Your task to perform on an android device: turn on improve location accuracy Image 0: 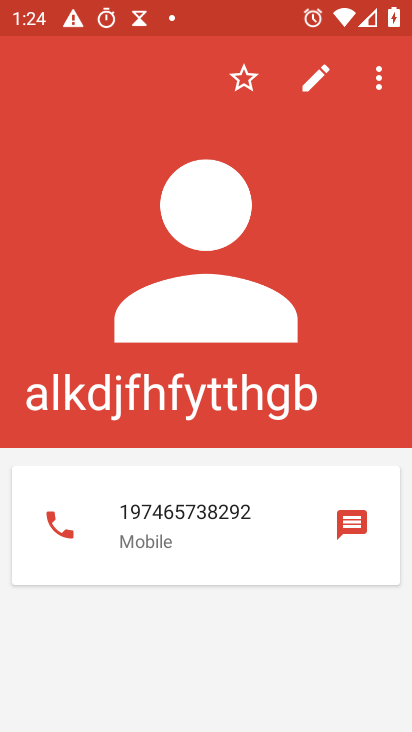
Step 0: press home button
Your task to perform on an android device: turn on improve location accuracy Image 1: 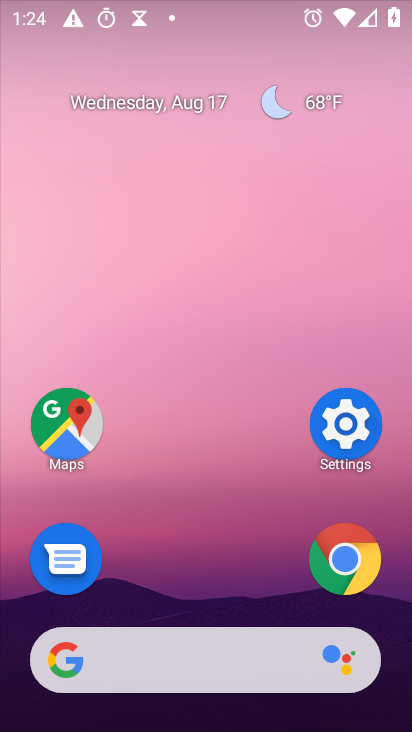
Step 1: click (353, 421)
Your task to perform on an android device: turn on improve location accuracy Image 2: 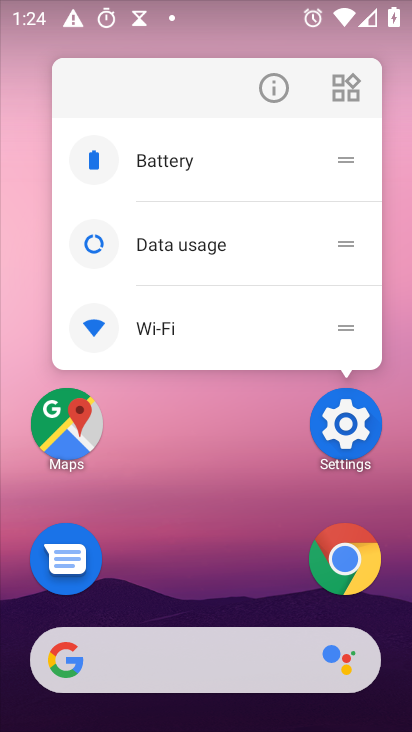
Step 2: click (345, 423)
Your task to perform on an android device: turn on improve location accuracy Image 3: 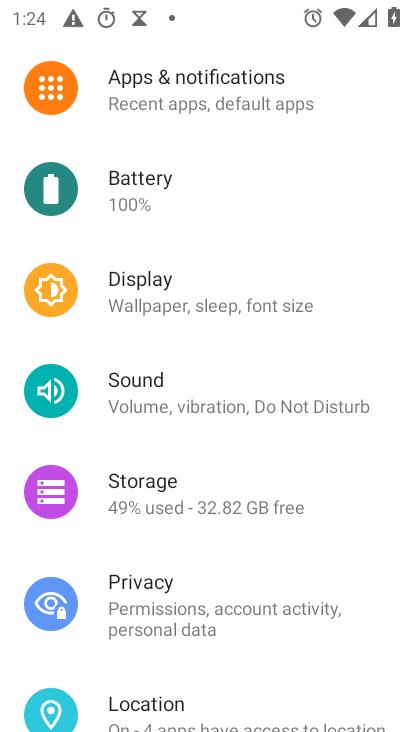
Step 3: drag from (152, 645) to (249, 121)
Your task to perform on an android device: turn on improve location accuracy Image 4: 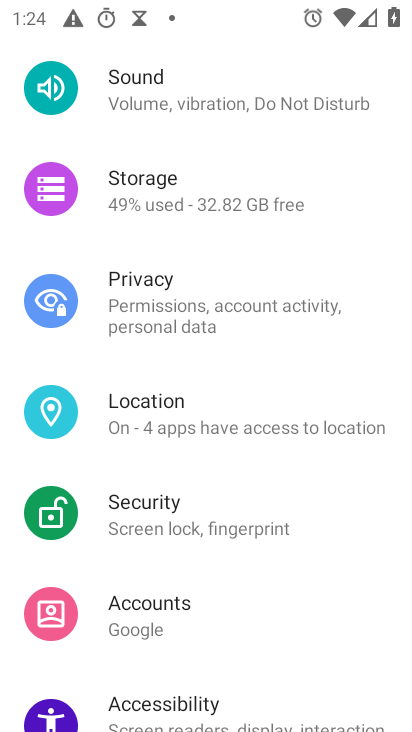
Step 4: click (164, 415)
Your task to perform on an android device: turn on improve location accuracy Image 5: 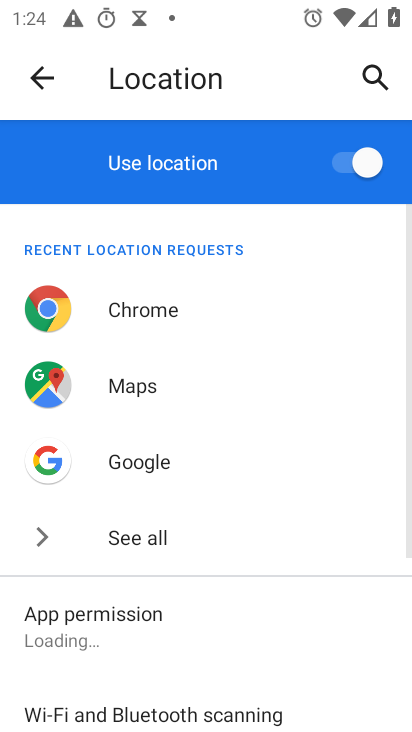
Step 5: drag from (192, 655) to (236, 118)
Your task to perform on an android device: turn on improve location accuracy Image 6: 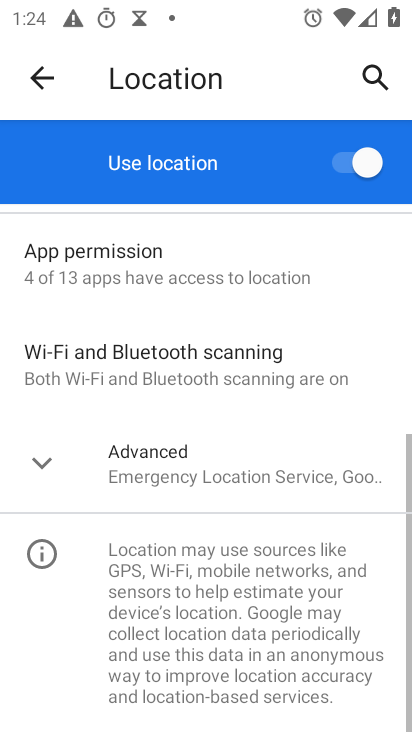
Step 6: click (170, 453)
Your task to perform on an android device: turn on improve location accuracy Image 7: 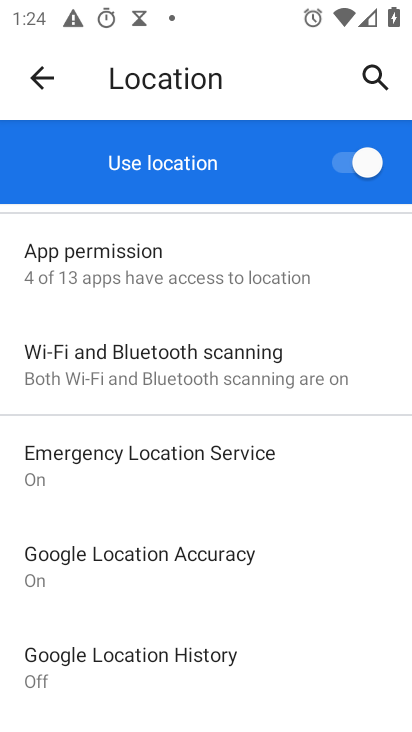
Step 7: click (201, 557)
Your task to perform on an android device: turn on improve location accuracy Image 8: 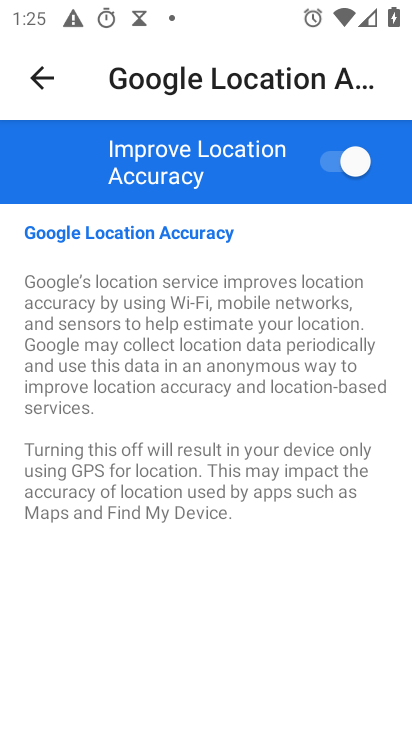
Step 8: task complete